Your task to perform on an android device: toggle data saver in the chrome app Image 0: 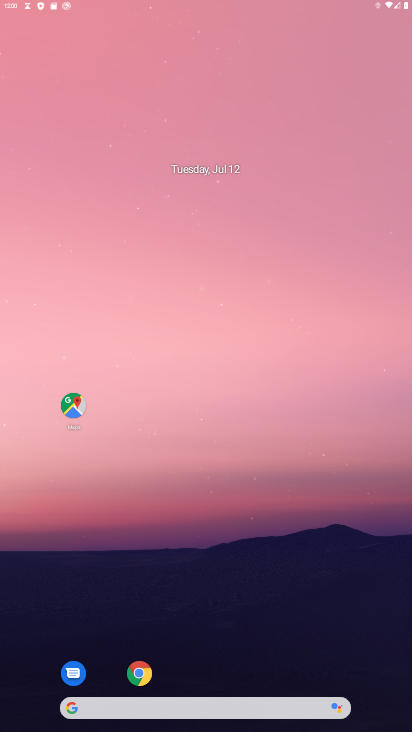
Step 0: drag from (220, 662) to (139, 160)
Your task to perform on an android device: toggle data saver in the chrome app Image 1: 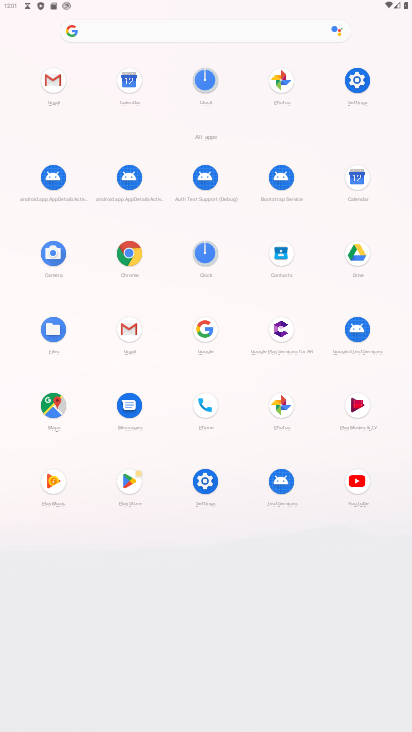
Step 1: click (132, 249)
Your task to perform on an android device: toggle data saver in the chrome app Image 2: 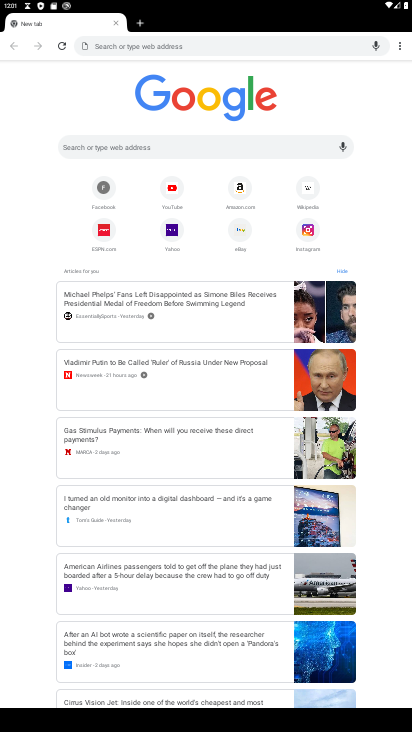
Step 2: click (402, 49)
Your task to perform on an android device: toggle data saver in the chrome app Image 3: 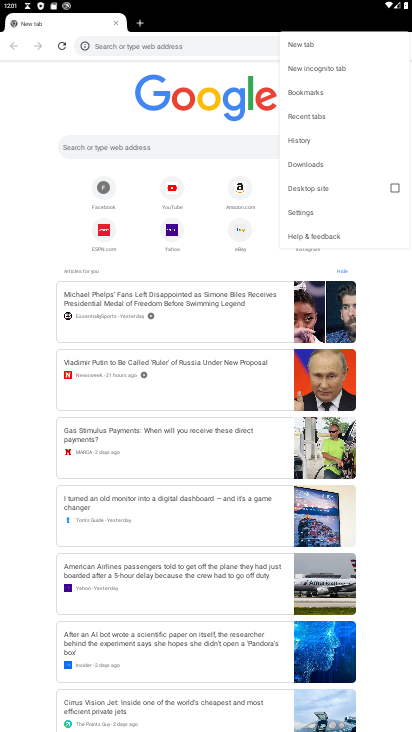
Step 3: click (313, 213)
Your task to perform on an android device: toggle data saver in the chrome app Image 4: 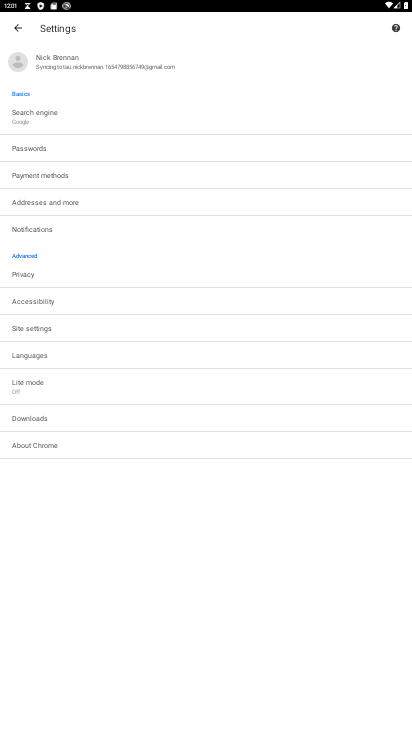
Step 4: click (53, 384)
Your task to perform on an android device: toggle data saver in the chrome app Image 5: 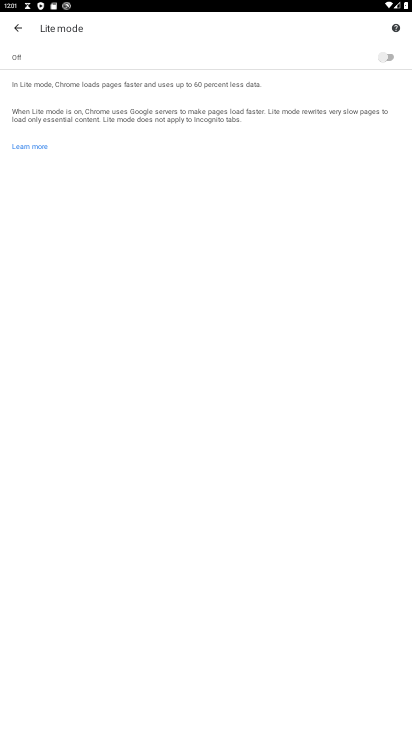
Step 5: click (394, 57)
Your task to perform on an android device: toggle data saver in the chrome app Image 6: 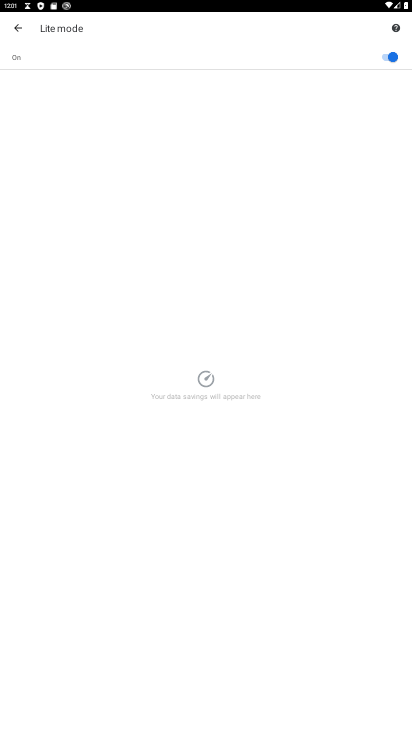
Step 6: task complete